Your task to perform on an android device: Is it going to rain this weekend? Image 0: 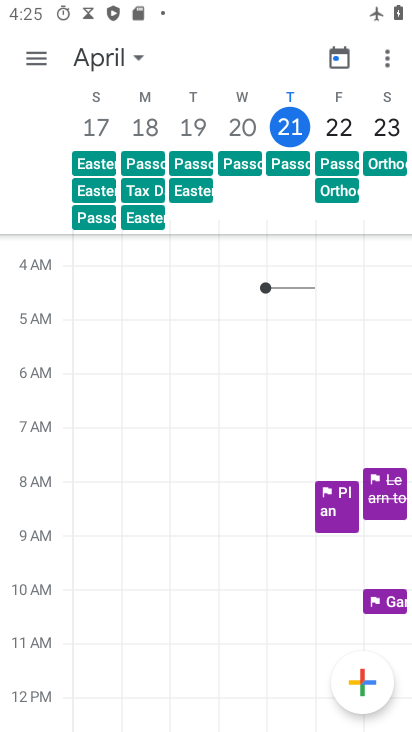
Step 0: click (344, 59)
Your task to perform on an android device: Is it going to rain this weekend? Image 1: 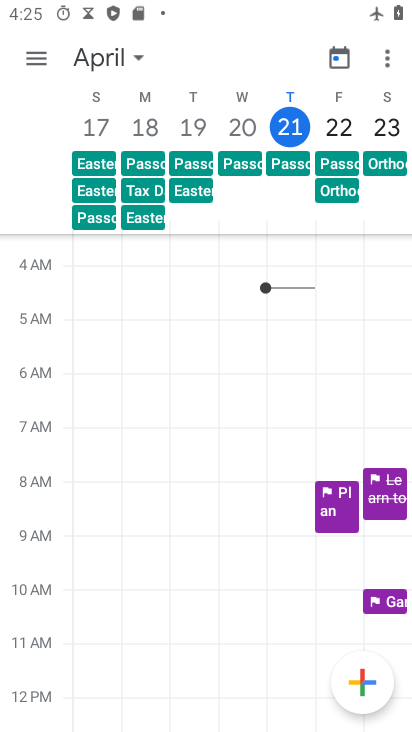
Step 1: click (344, 59)
Your task to perform on an android device: Is it going to rain this weekend? Image 2: 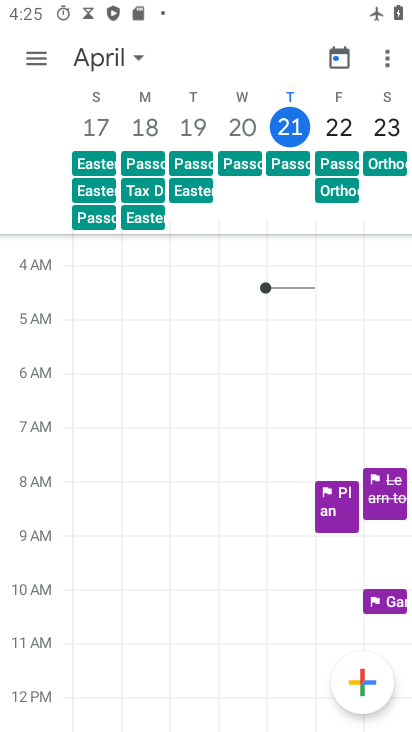
Step 2: click (141, 63)
Your task to perform on an android device: Is it going to rain this weekend? Image 3: 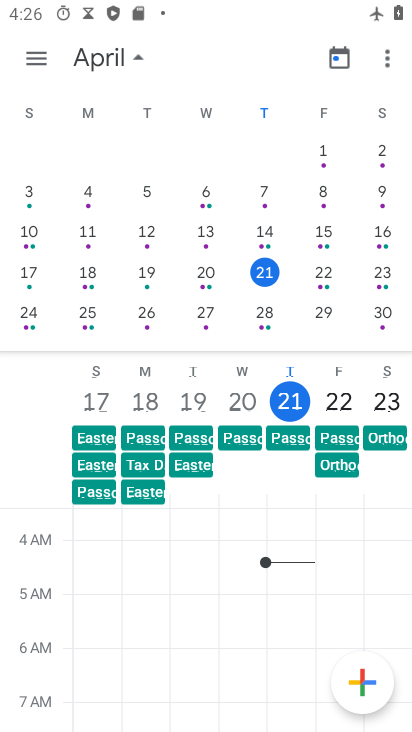
Step 3: press home button
Your task to perform on an android device: Is it going to rain this weekend? Image 4: 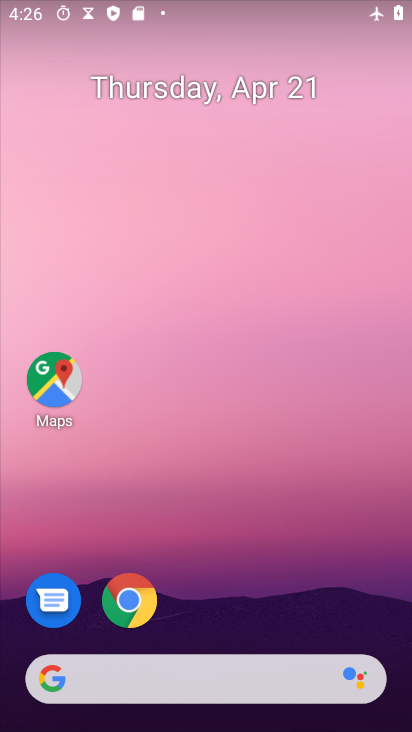
Step 4: drag from (217, 609) to (175, 174)
Your task to perform on an android device: Is it going to rain this weekend? Image 5: 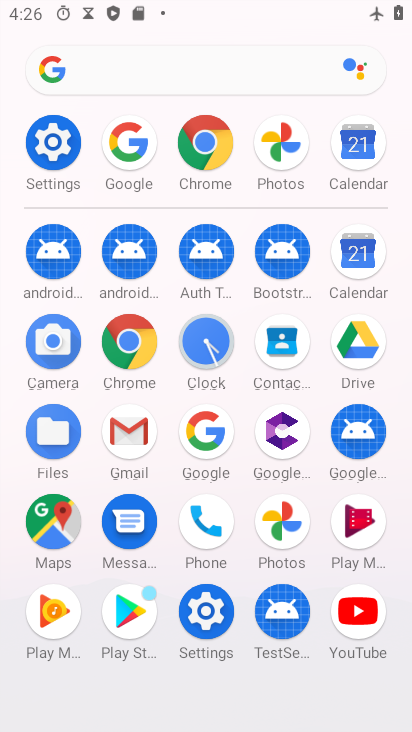
Step 5: click (131, 138)
Your task to perform on an android device: Is it going to rain this weekend? Image 6: 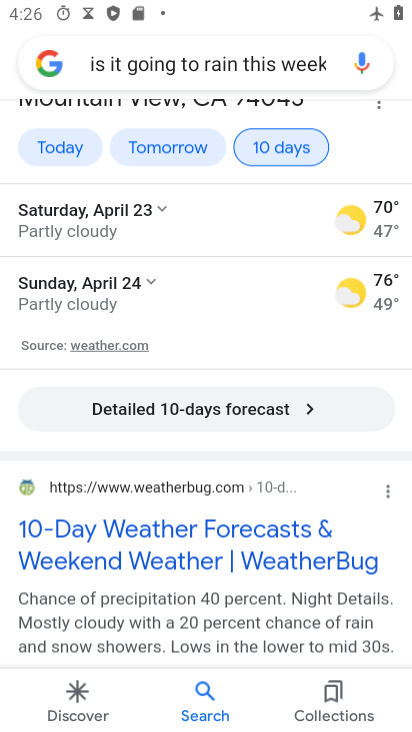
Step 6: drag from (205, 193) to (231, 338)
Your task to perform on an android device: Is it going to rain this weekend? Image 7: 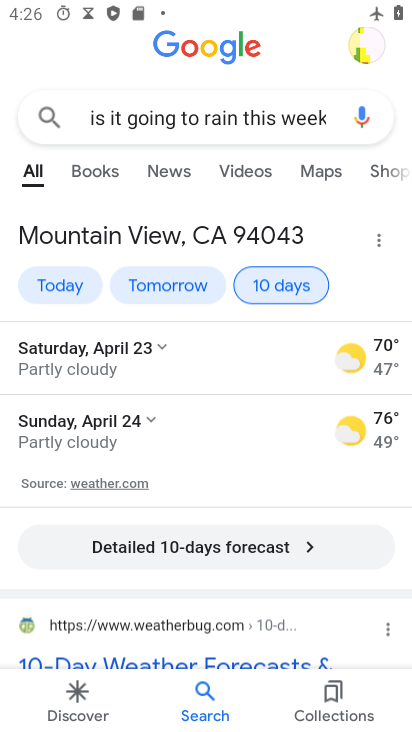
Step 7: click (230, 120)
Your task to perform on an android device: Is it going to rain this weekend? Image 8: 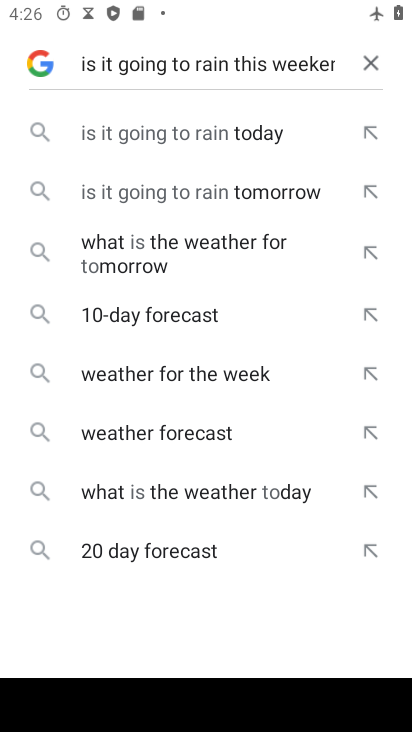
Step 8: click (307, 69)
Your task to perform on an android device: Is it going to rain this weekend? Image 9: 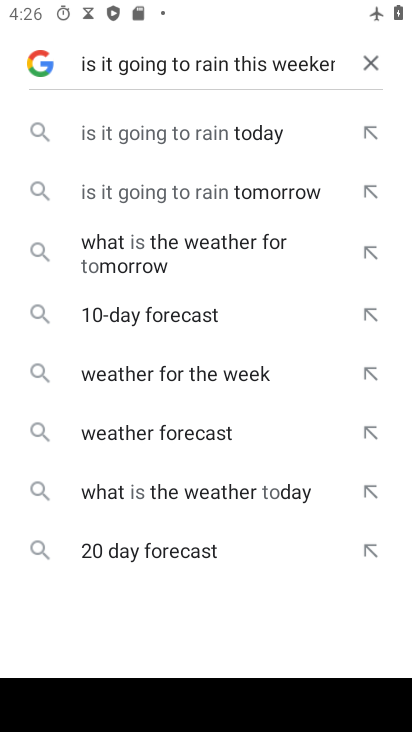
Step 9: click (236, 67)
Your task to perform on an android device: Is it going to rain this weekend? Image 10: 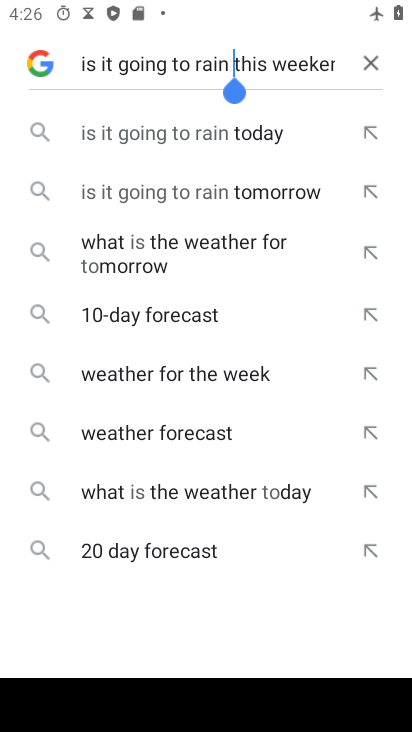
Step 10: click (374, 61)
Your task to perform on an android device: Is it going to rain this weekend? Image 11: 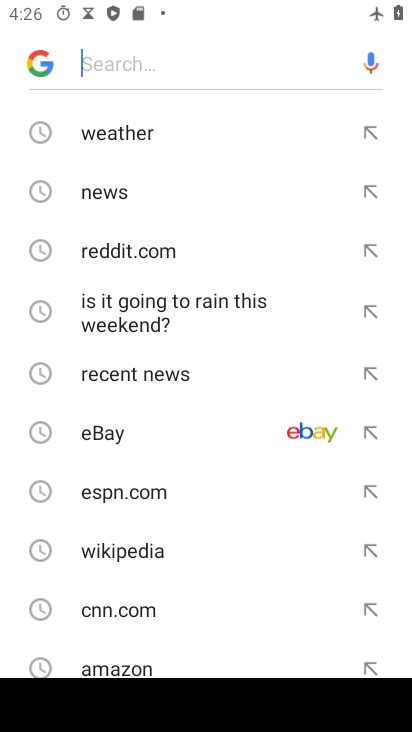
Step 11: click (140, 317)
Your task to perform on an android device: Is it going to rain this weekend? Image 12: 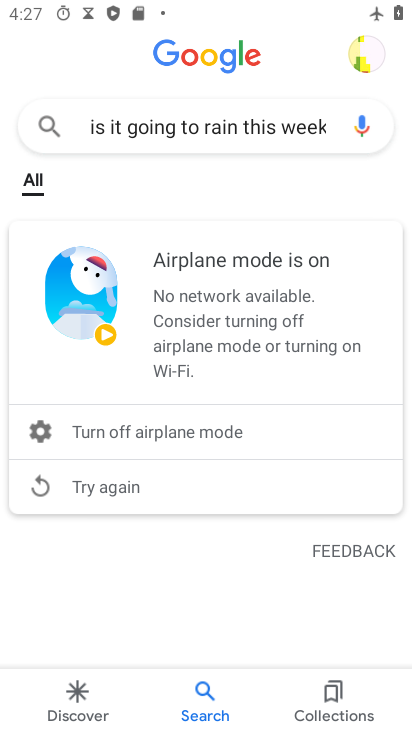
Step 12: task complete